Your task to perform on an android device: Show me the alarms in the clock app Image 0: 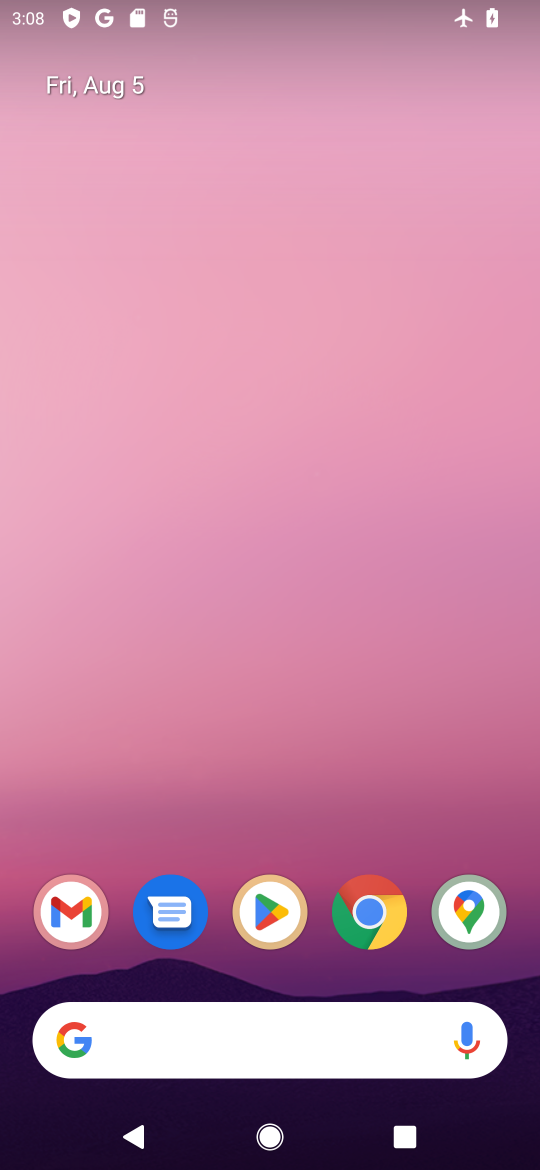
Step 0: drag from (246, 909) to (320, 16)
Your task to perform on an android device: Show me the alarms in the clock app Image 1: 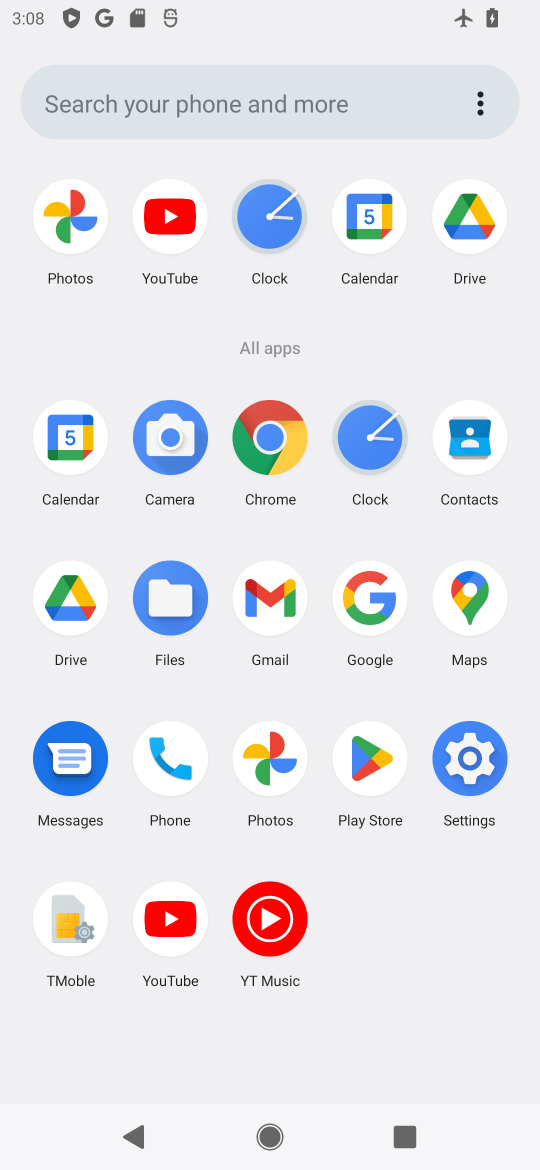
Step 1: click (375, 446)
Your task to perform on an android device: Show me the alarms in the clock app Image 2: 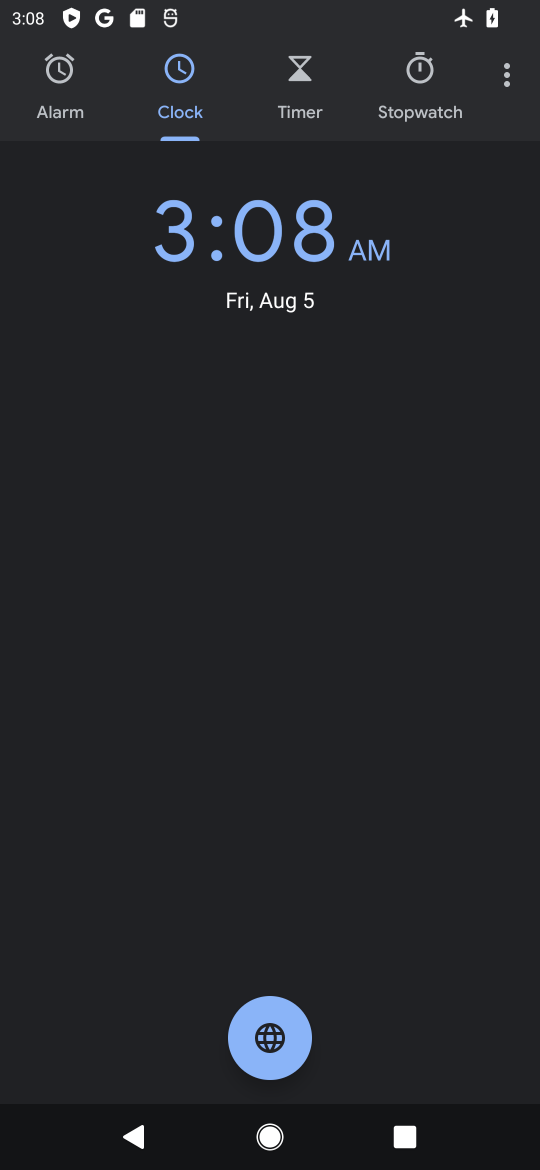
Step 2: click (51, 75)
Your task to perform on an android device: Show me the alarms in the clock app Image 3: 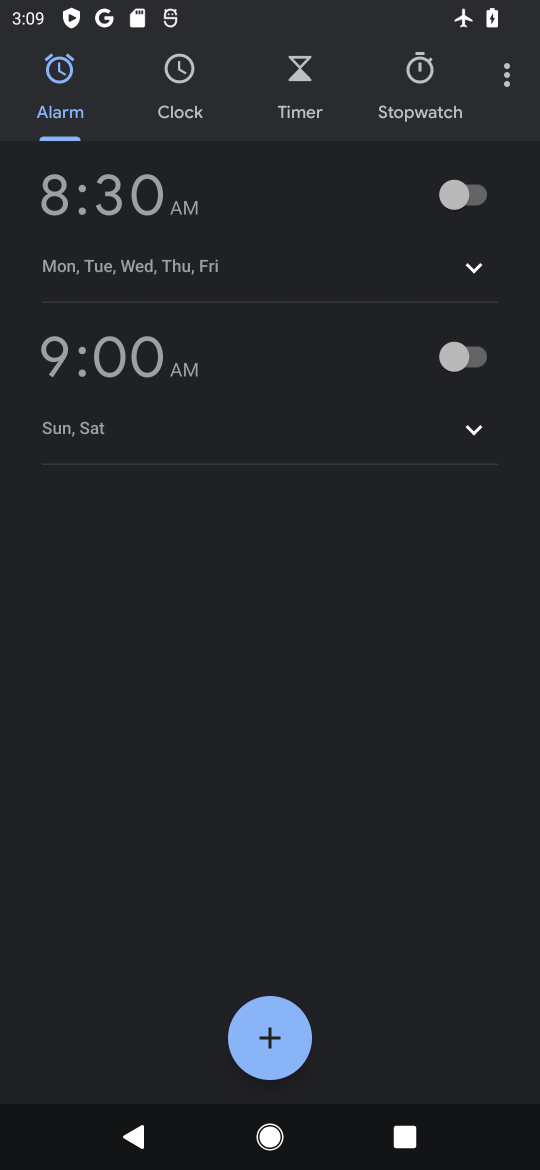
Step 3: task complete